Your task to perform on an android device: Go to settings Image 0: 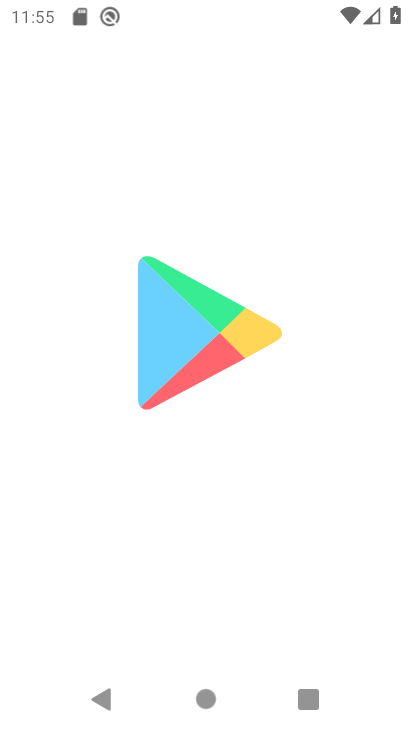
Step 0: drag from (375, 520) to (355, 138)
Your task to perform on an android device: Go to settings Image 1: 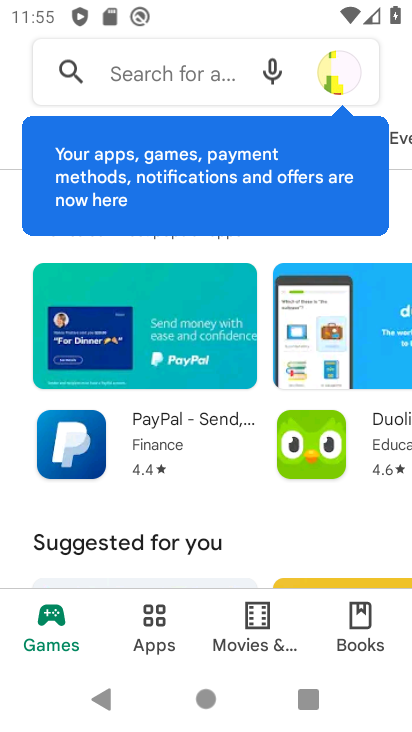
Step 1: press home button
Your task to perform on an android device: Go to settings Image 2: 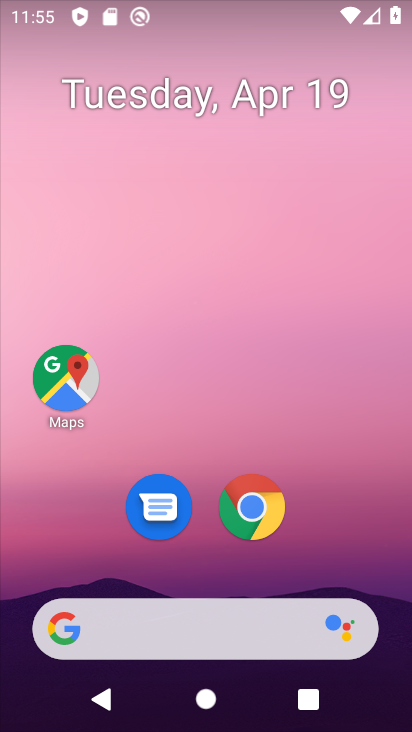
Step 2: drag from (335, 508) to (348, 192)
Your task to perform on an android device: Go to settings Image 3: 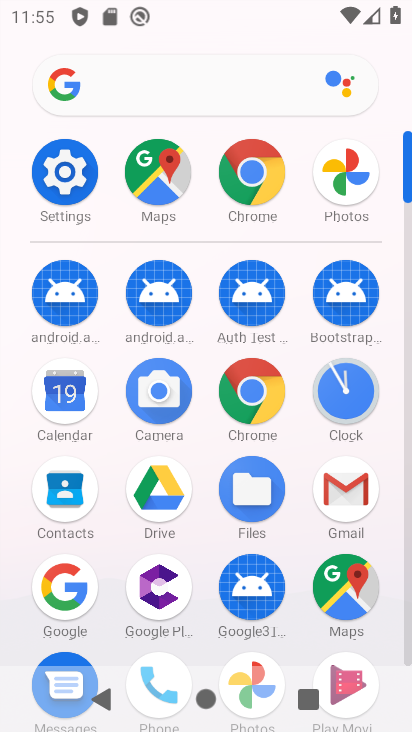
Step 3: click (81, 186)
Your task to perform on an android device: Go to settings Image 4: 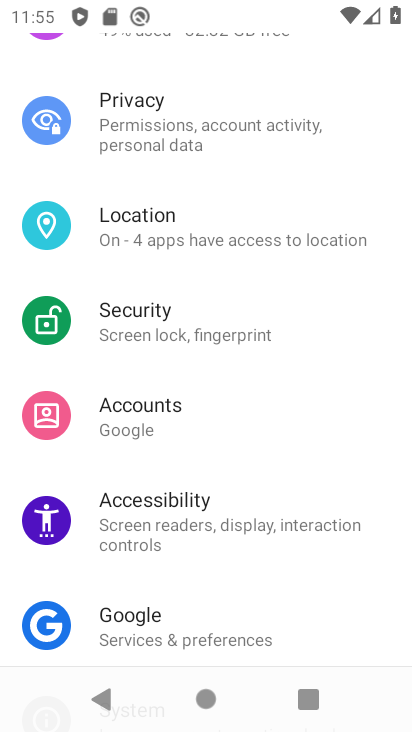
Step 4: task complete